Your task to perform on an android device: turn off sleep mode Image 0: 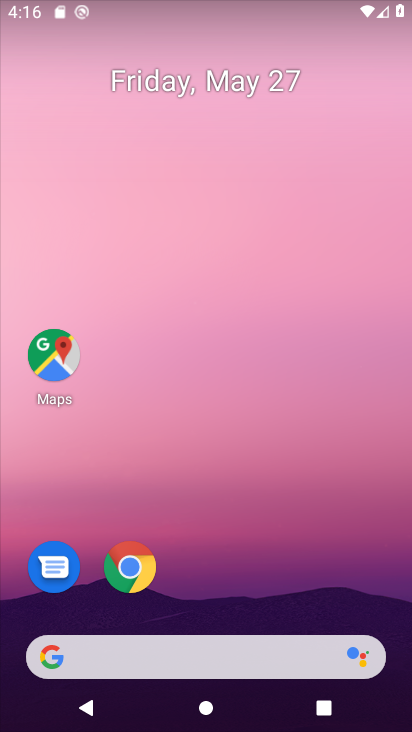
Step 0: drag from (208, 570) to (220, 43)
Your task to perform on an android device: turn off sleep mode Image 1: 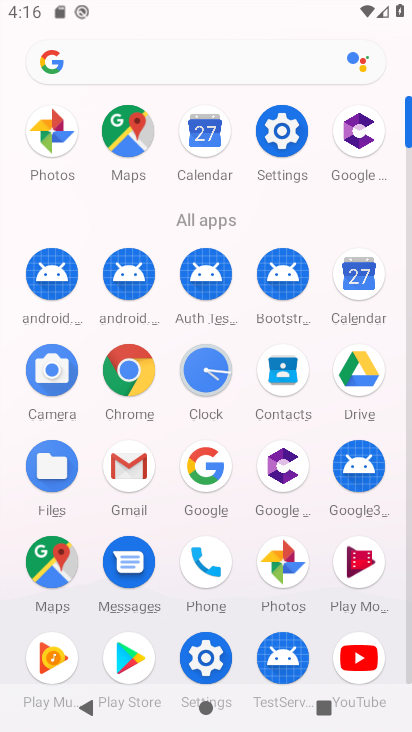
Step 1: click (263, 145)
Your task to perform on an android device: turn off sleep mode Image 2: 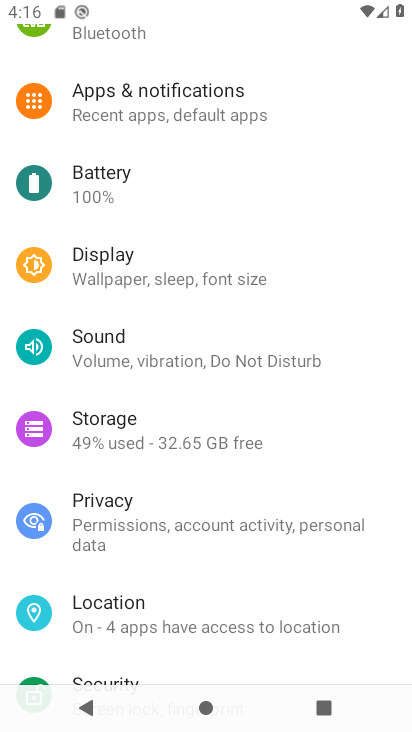
Step 2: click (219, 259)
Your task to perform on an android device: turn off sleep mode Image 3: 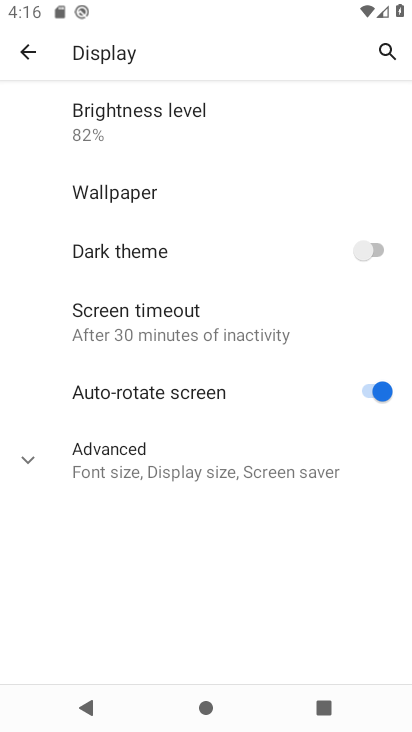
Step 3: click (121, 471)
Your task to perform on an android device: turn off sleep mode Image 4: 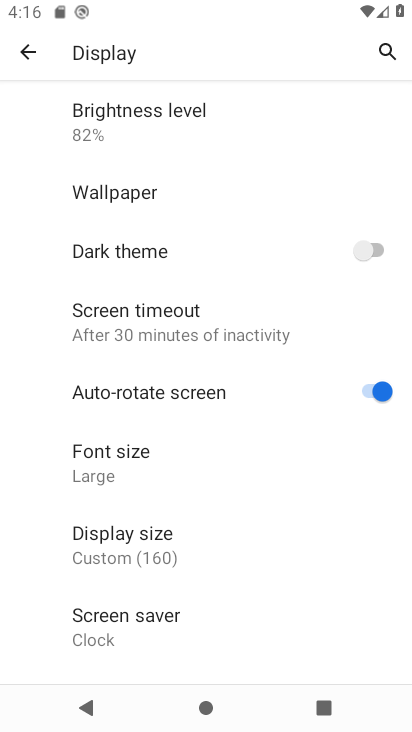
Step 4: task complete